Your task to perform on an android device: check storage Image 0: 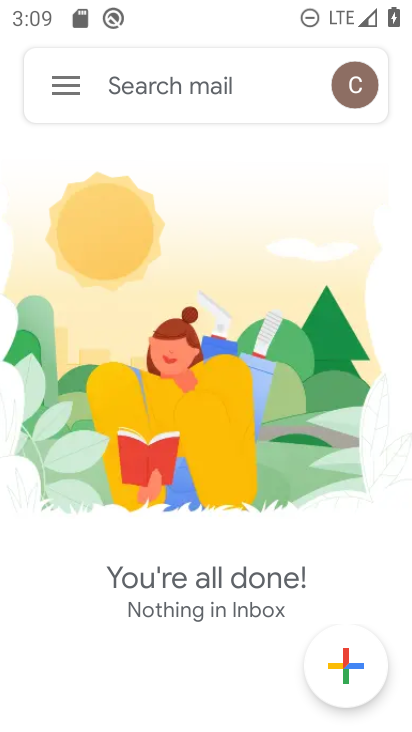
Step 0: press home button
Your task to perform on an android device: check storage Image 1: 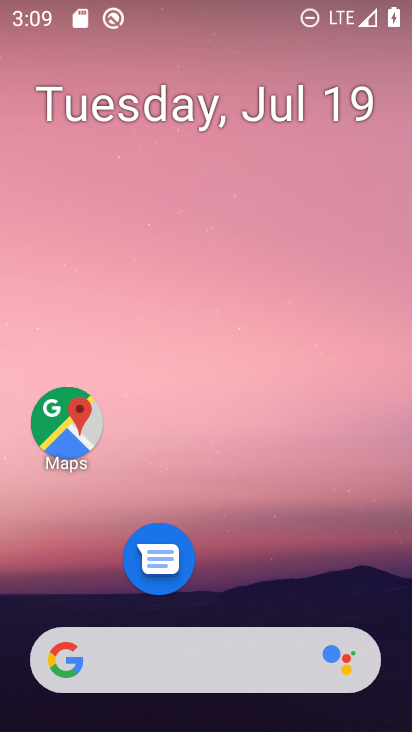
Step 1: drag from (211, 631) to (142, 200)
Your task to perform on an android device: check storage Image 2: 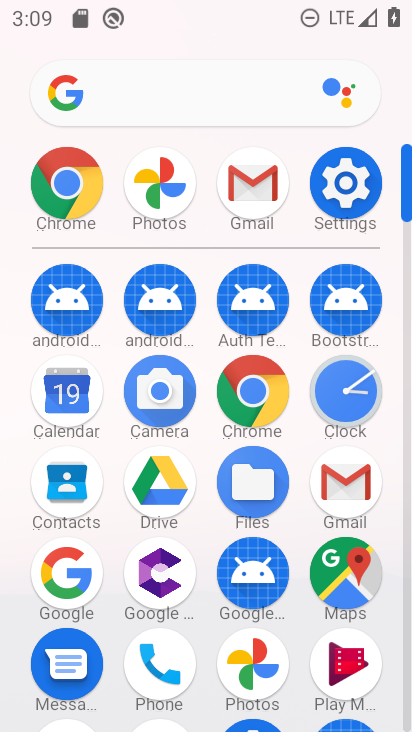
Step 2: drag from (151, 563) to (236, 171)
Your task to perform on an android device: check storage Image 3: 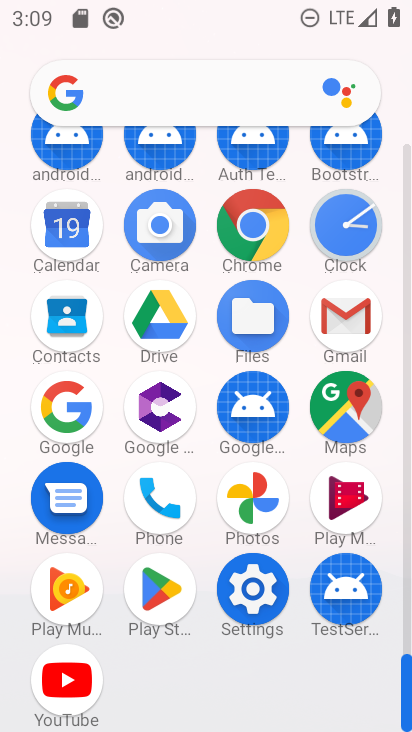
Step 3: click (247, 612)
Your task to perform on an android device: check storage Image 4: 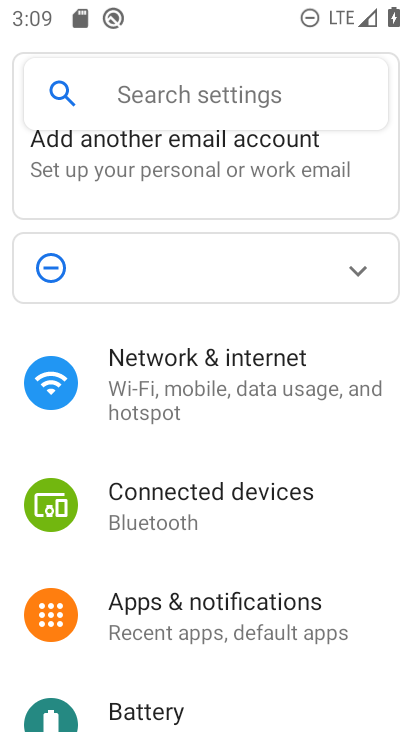
Step 4: drag from (246, 513) to (269, 239)
Your task to perform on an android device: check storage Image 5: 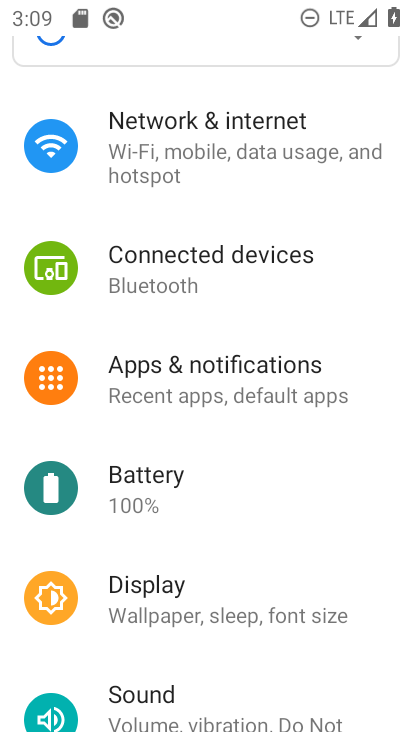
Step 5: drag from (268, 580) to (282, 308)
Your task to perform on an android device: check storage Image 6: 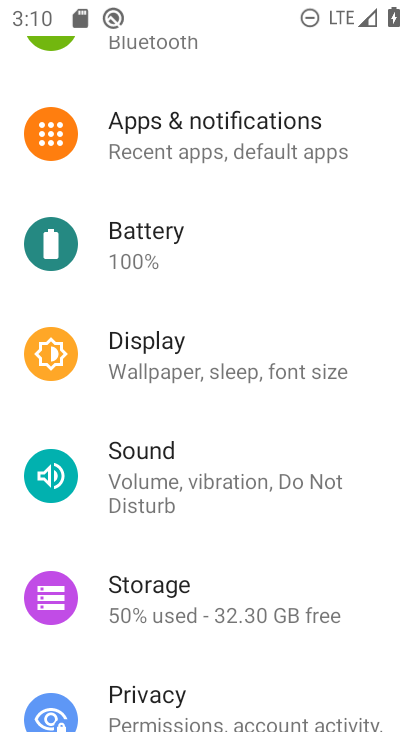
Step 6: drag from (197, 487) to (182, 141)
Your task to perform on an android device: check storage Image 7: 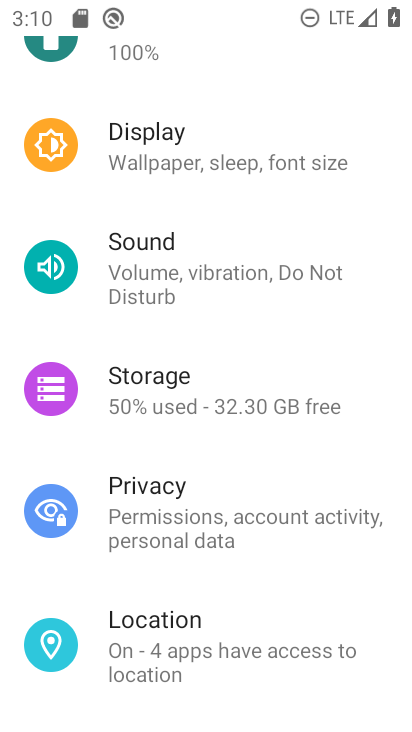
Step 7: click (278, 380)
Your task to perform on an android device: check storage Image 8: 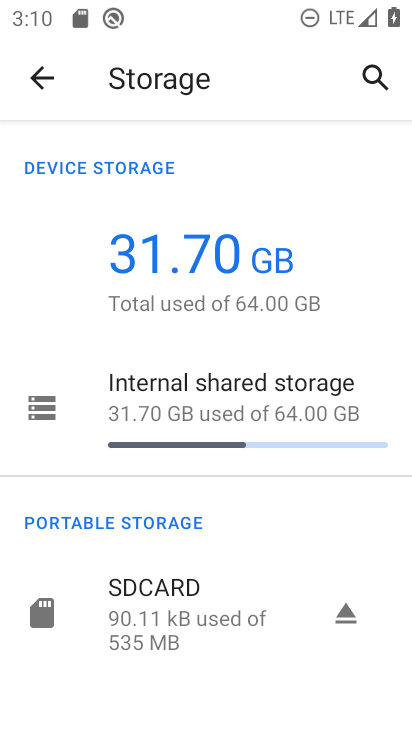
Step 8: click (268, 424)
Your task to perform on an android device: check storage Image 9: 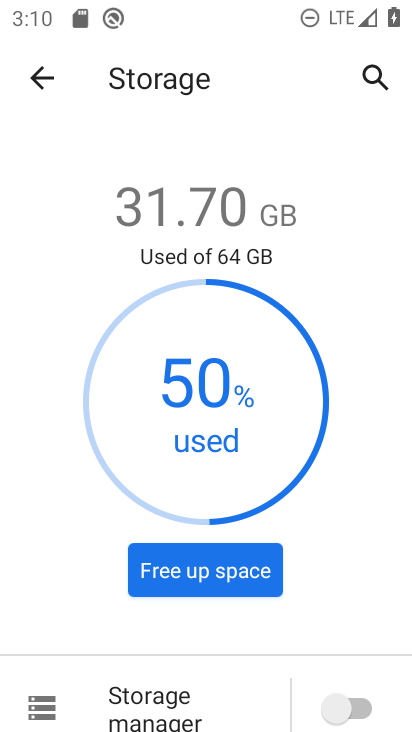
Step 9: task complete